Your task to perform on an android device: What's the weather going to be tomorrow? Image 0: 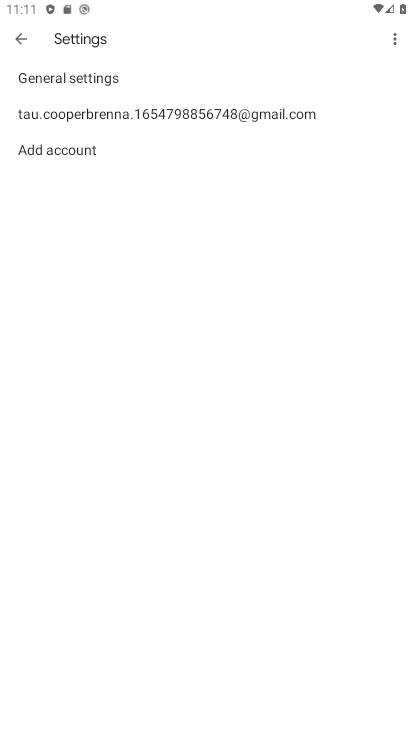
Step 0: press home button
Your task to perform on an android device: What's the weather going to be tomorrow? Image 1: 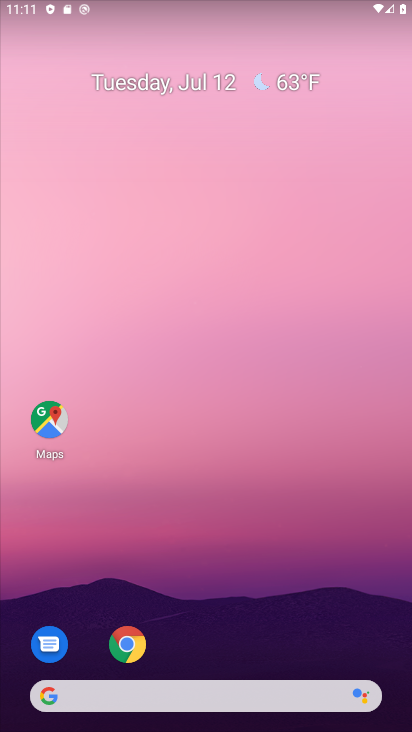
Step 1: drag from (158, 703) to (275, 75)
Your task to perform on an android device: What's the weather going to be tomorrow? Image 2: 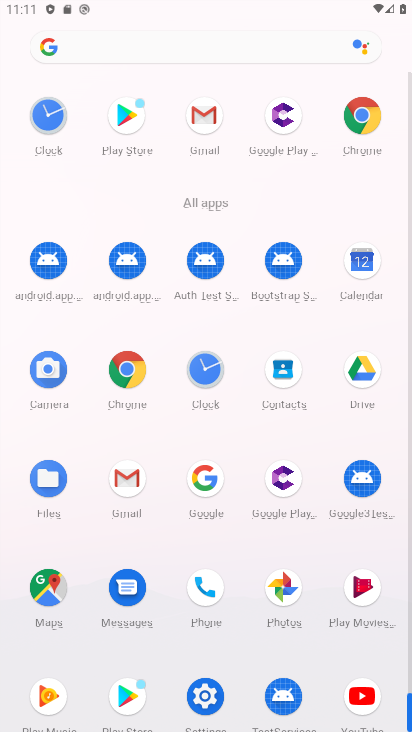
Step 2: click (202, 479)
Your task to perform on an android device: What's the weather going to be tomorrow? Image 3: 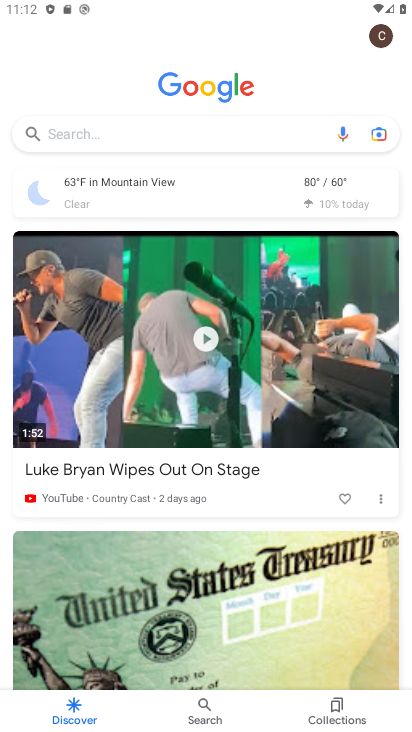
Step 3: click (203, 177)
Your task to perform on an android device: What's the weather going to be tomorrow? Image 4: 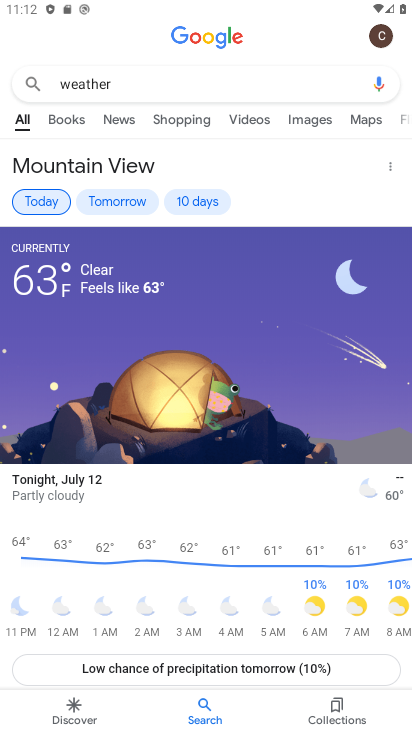
Step 4: click (121, 200)
Your task to perform on an android device: What's the weather going to be tomorrow? Image 5: 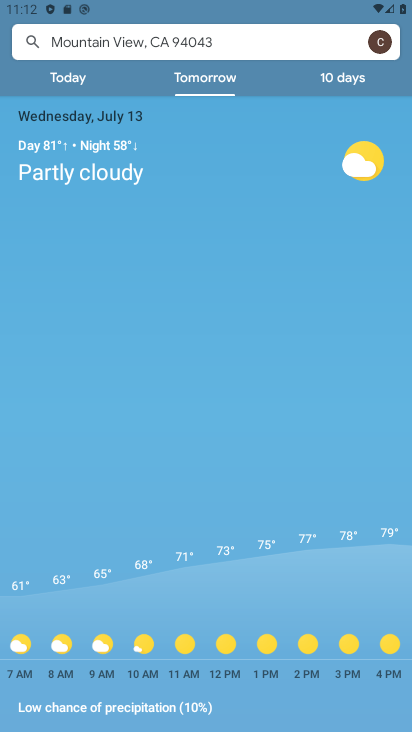
Step 5: task complete